Your task to perform on an android device: Open calendar and show me the third week of next month Image 0: 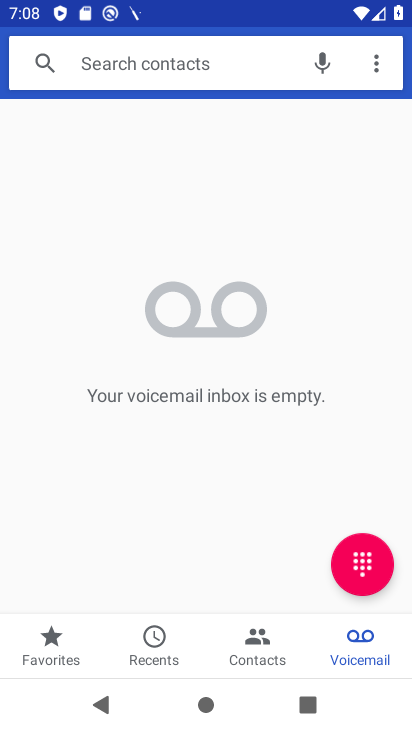
Step 0: press home button
Your task to perform on an android device: Open calendar and show me the third week of next month Image 1: 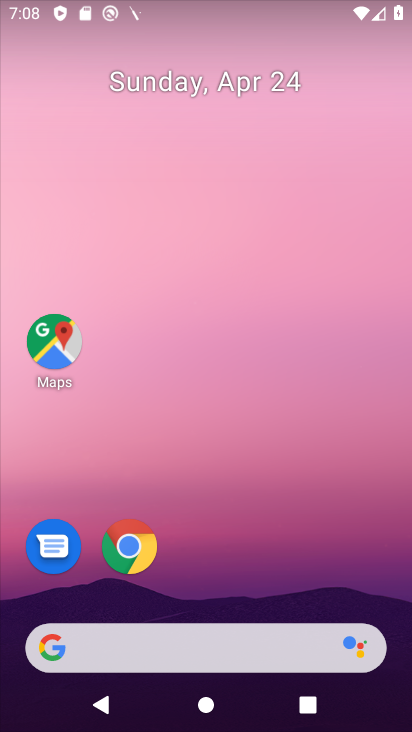
Step 1: drag from (239, 547) to (120, 48)
Your task to perform on an android device: Open calendar and show me the third week of next month Image 2: 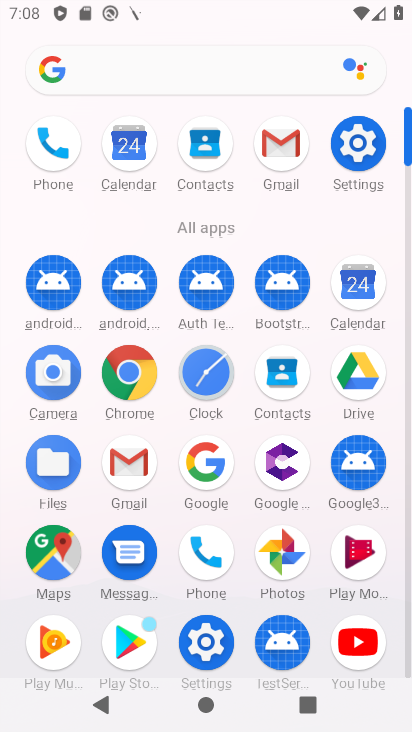
Step 2: click (360, 284)
Your task to perform on an android device: Open calendar and show me the third week of next month Image 3: 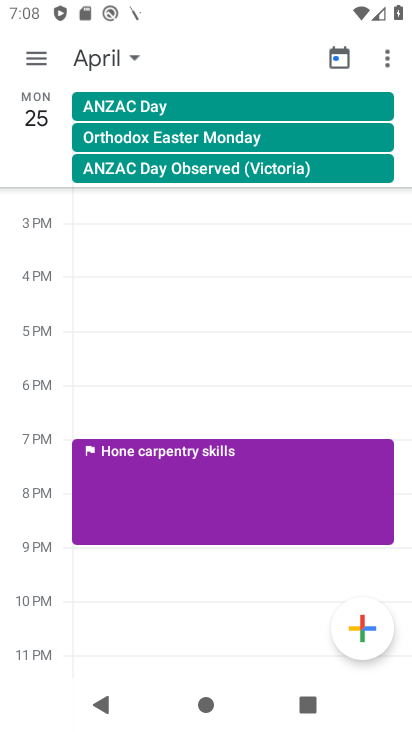
Step 3: click (32, 53)
Your task to perform on an android device: Open calendar and show me the third week of next month Image 4: 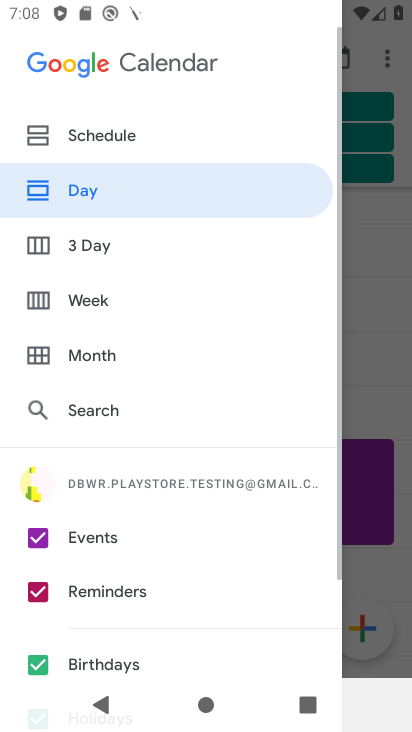
Step 4: click (90, 300)
Your task to perform on an android device: Open calendar and show me the third week of next month Image 5: 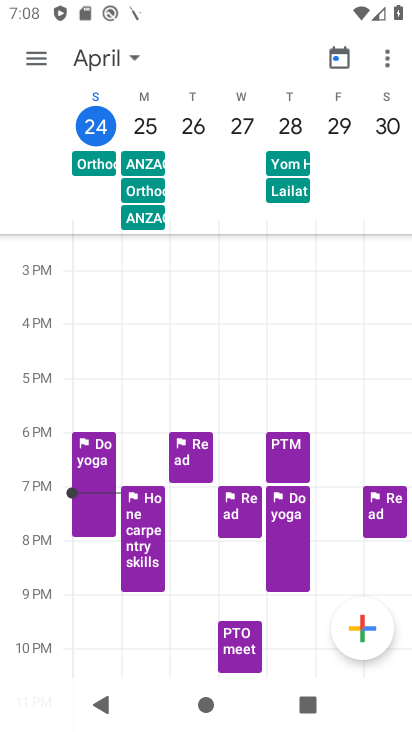
Step 5: click (130, 56)
Your task to perform on an android device: Open calendar and show me the third week of next month Image 6: 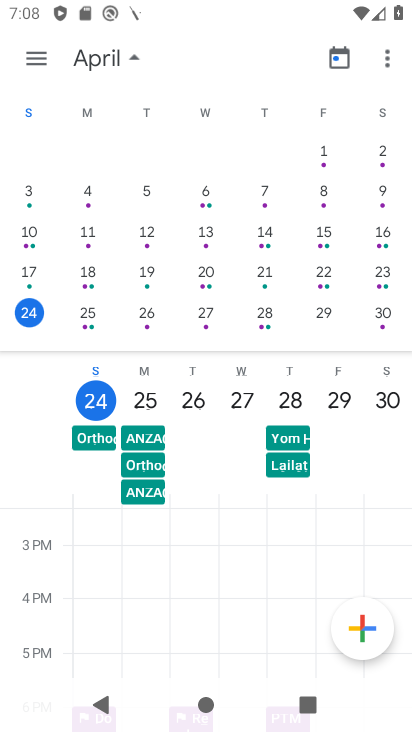
Step 6: drag from (341, 233) to (26, 144)
Your task to perform on an android device: Open calendar and show me the third week of next month Image 7: 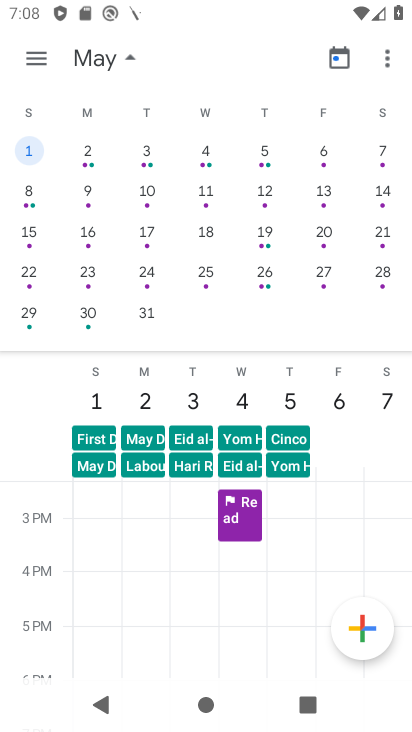
Step 7: click (149, 230)
Your task to perform on an android device: Open calendar and show me the third week of next month Image 8: 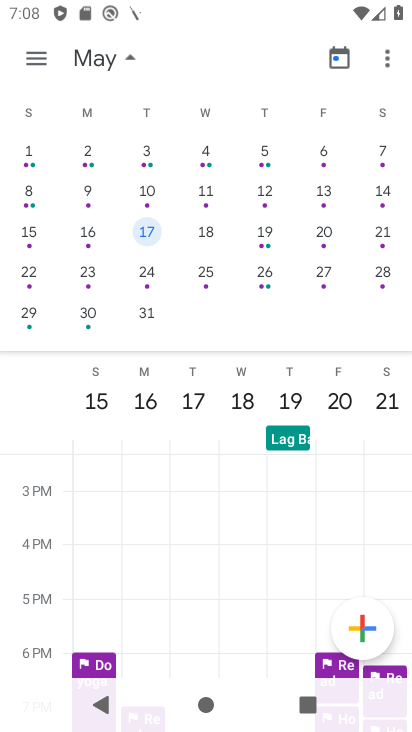
Step 8: task complete